Your task to perform on an android device: Go to battery settings Image 0: 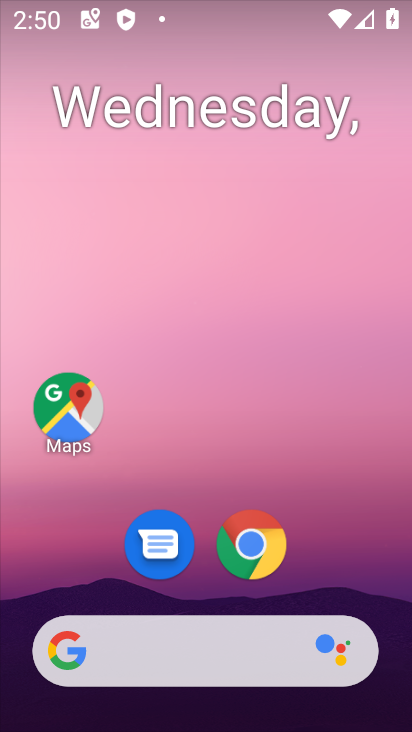
Step 0: drag from (342, 585) to (332, 196)
Your task to perform on an android device: Go to battery settings Image 1: 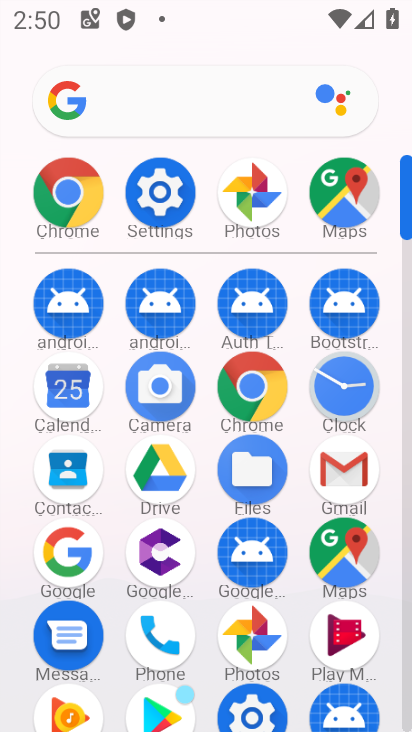
Step 1: drag from (255, 675) to (283, 255)
Your task to perform on an android device: Go to battery settings Image 2: 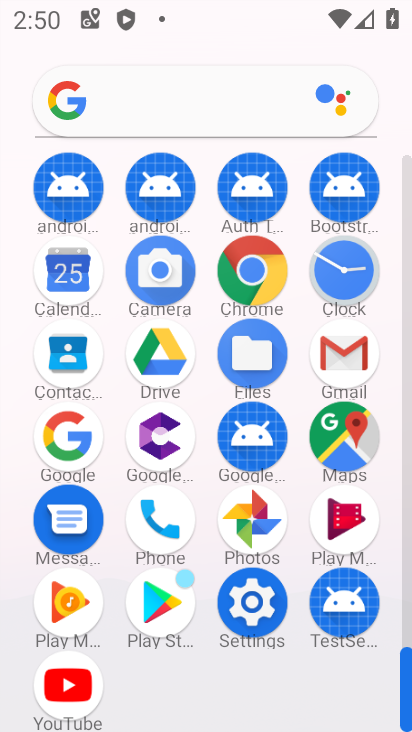
Step 2: click (253, 598)
Your task to perform on an android device: Go to battery settings Image 3: 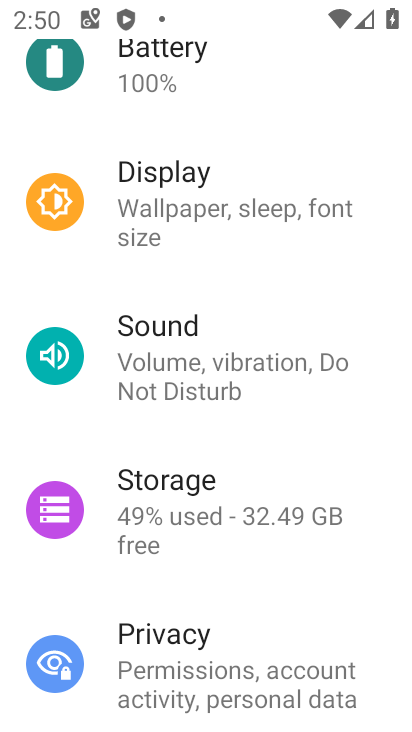
Step 3: drag from (252, 217) to (252, 428)
Your task to perform on an android device: Go to battery settings Image 4: 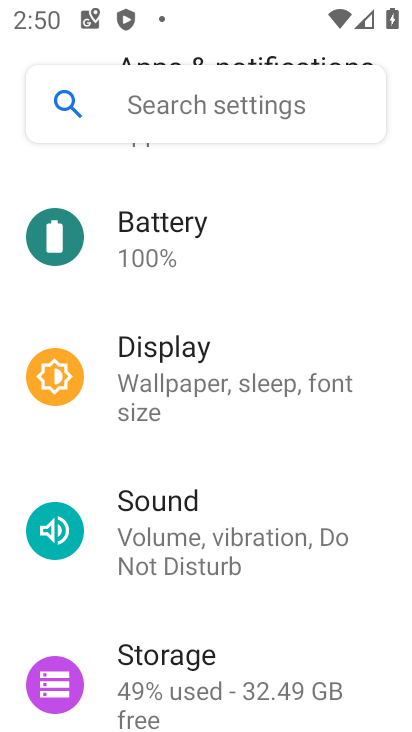
Step 4: click (208, 248)
Your task to perform on an android device: Go to battery settings Image 5: 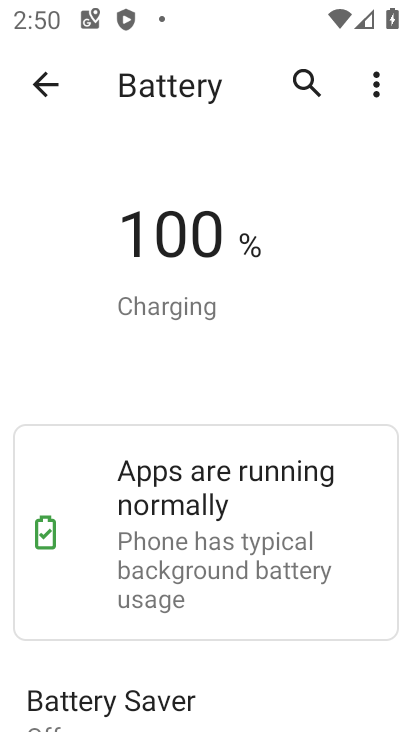
Step 5: task complete